Your task to perform on an android device: Go to settings Image 0: 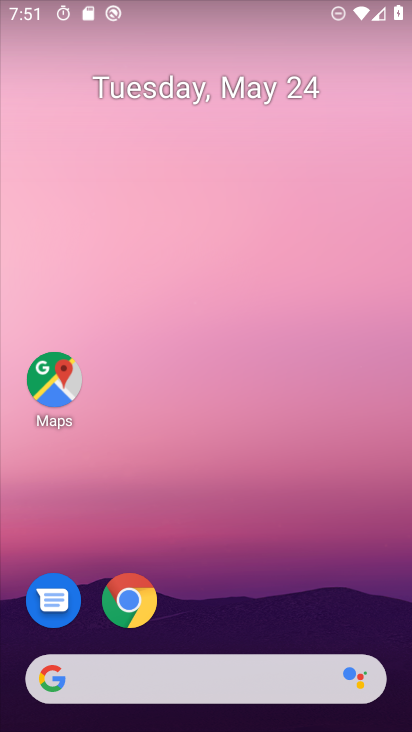
Step 0: drag from (276, 588) to (349, 13)
Your task to perform on an android device: Go to settings Image 1: 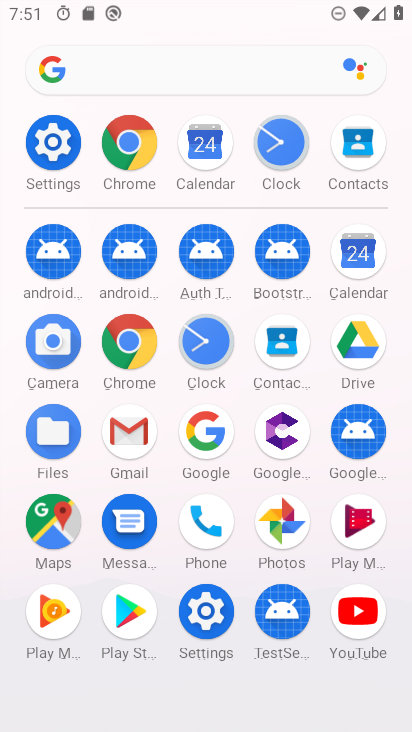
Step 1: click (53, 145)
Your task to perform on an android device: Go to settings Image 2: 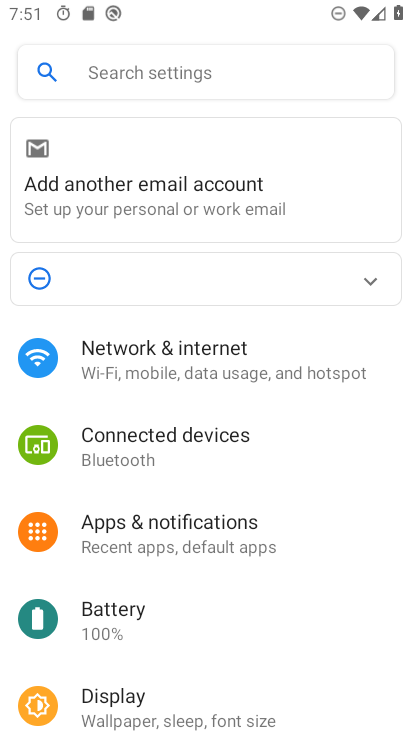
Step 2: task complete